Your task to perform on an android device: Search for Mexican restaurants on Maps Image 0: 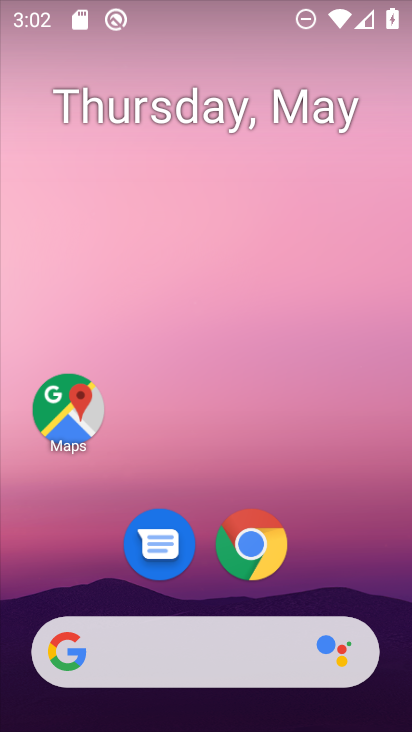
Step 0: click (73, 408)
Your task to perform on an android device: Search for Mexican restaurants on Maps Image 1: 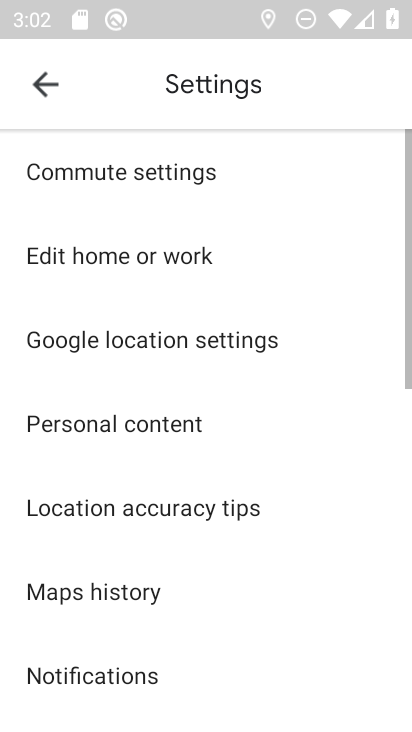
Step 1: press back button
Your task to perform on an android device: Search for Mexican restaurants on Maps Image 2: 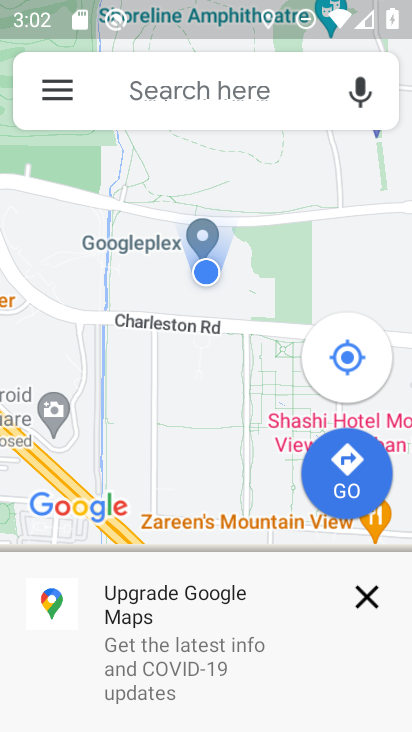
Step 2: click (369, 597)
Your task to perform on an android device: Search for Mexican restaurants on Maps Image 3: 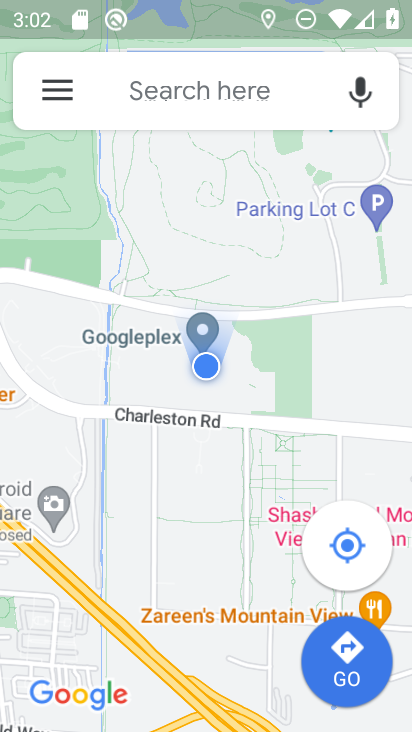
Step 3: click (188, 112)
Your task to perform on an android device: Search for Mexican restaurants on Maps Image 4: 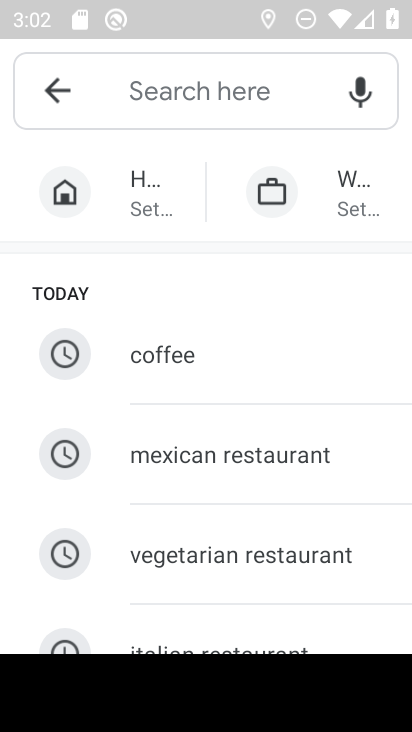
Step 4: type "Mexican restaurants"
Your task to perform on an android device: Search for Mexican restaurants on Maps Image 5: 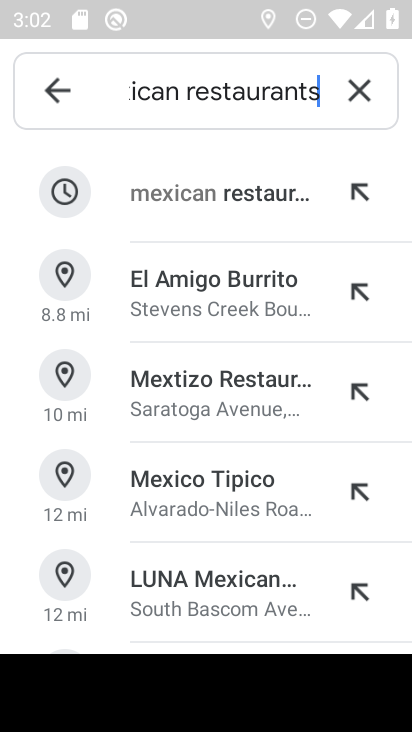
Step 5: click (157, 214)
Your task to perform on an android device: Search for Mexican restaurants on Maps Image 6: 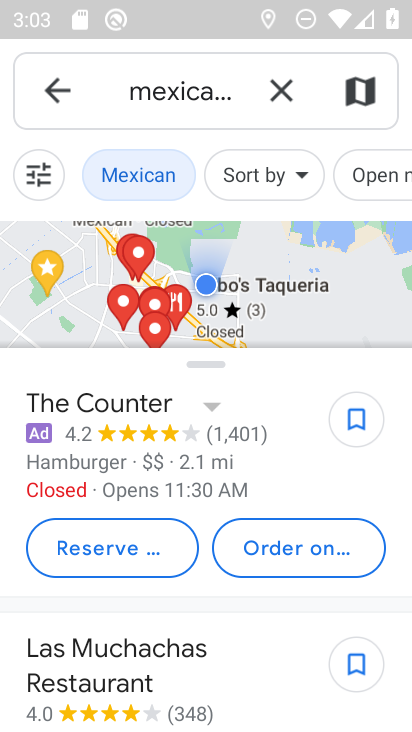
Step 6: task complete